Your task to perform on an android device: open chrome and create a bookmark for the current page Image 0: 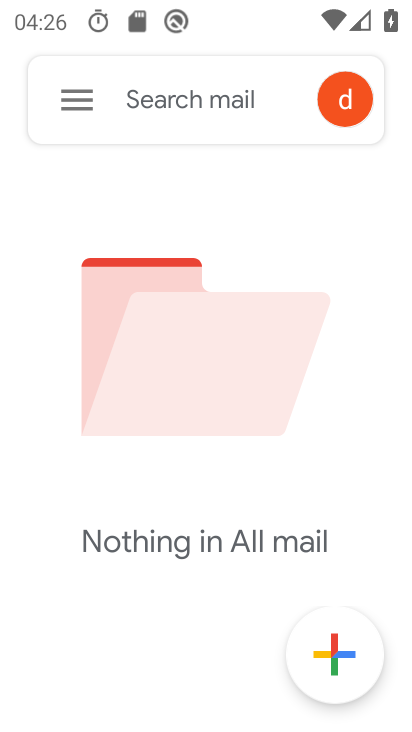
Step 0: press back button
Your task to perform on an android device: open chrome and create a bookmark for the current page Image 1: 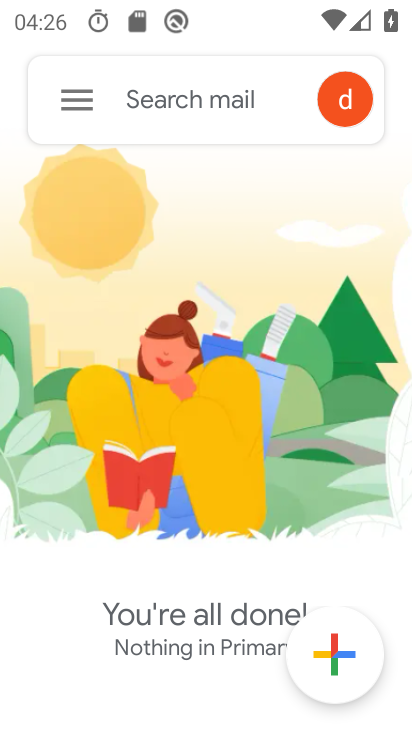
Step 1: press home button
Your task to perform on an android device: open chrome and create a bookmark for the current page Image 2: 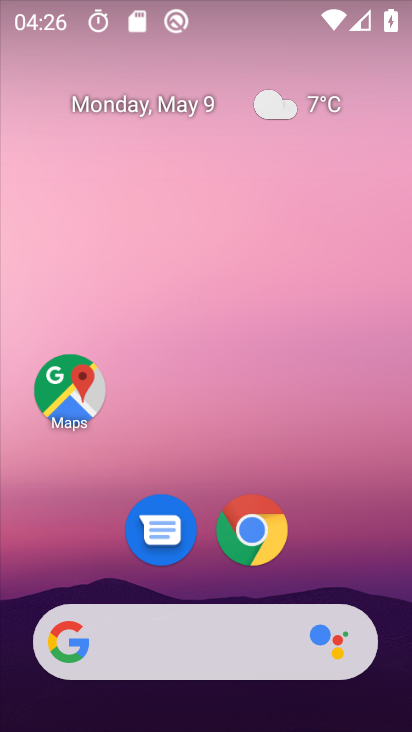
Step 2: click (247, 524)
Your task to perform on an android device: open chrome and create a bookmark for the current page Image 3: 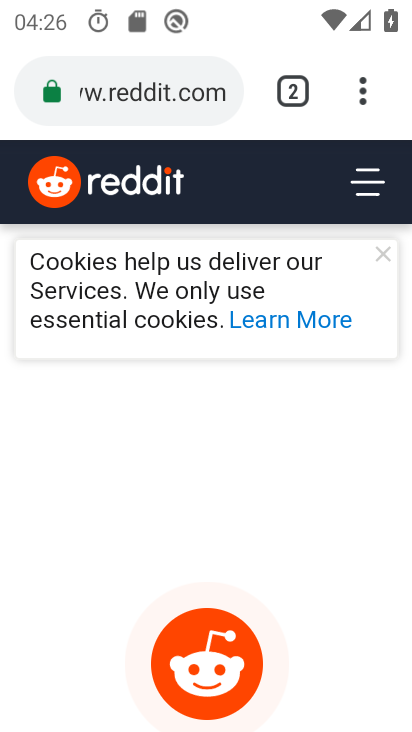
Step 3: task complete